Your task to perform on an android device: Show me productivity apps on the Play Store Image 0: 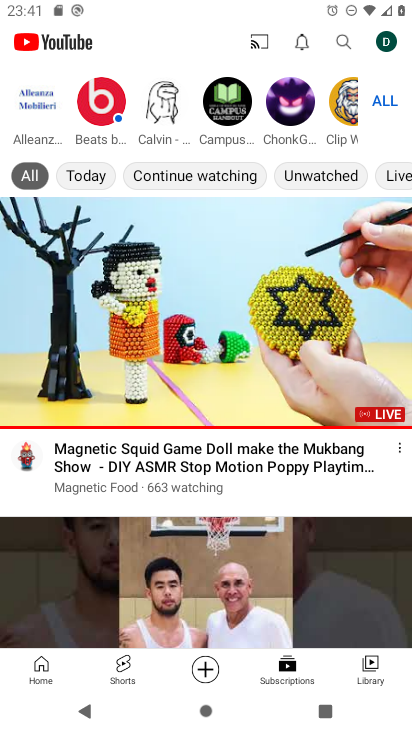
Step 0: press home button
Your task to perform on an android device: Show me productivity apps on the Play Store Image 1: 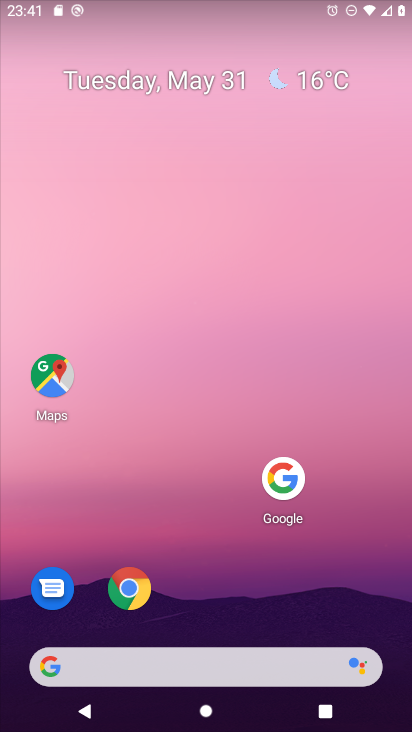
Step 1: drag from (172, 638) to (297, 93)
Your task to perform on an android device: Show me productivity apps on the Play Store Image 2: 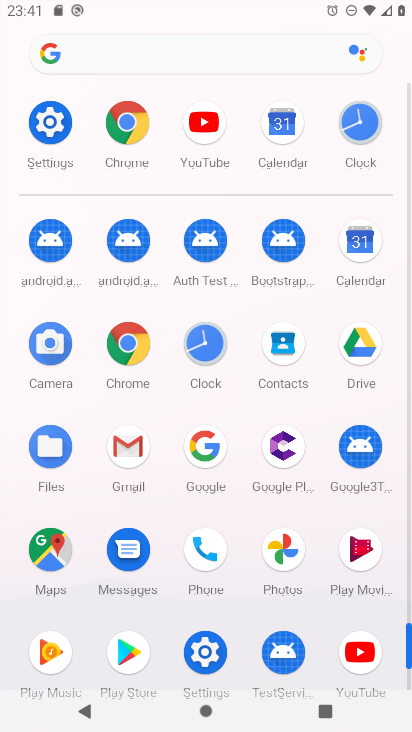
Step 2: click (133, 652)
Your task to perform on an android device: Show me productivity apps on the Play Store Image 3: 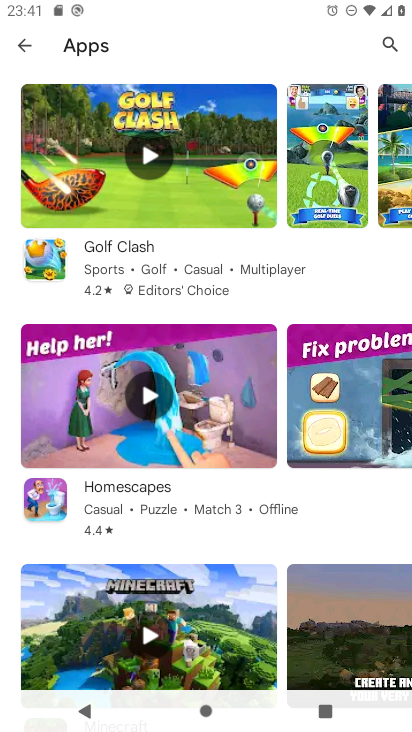
Step 3: click (22, 45)
Your task to perform on an android device: Show me productivity apps on the Play Store Image 4: 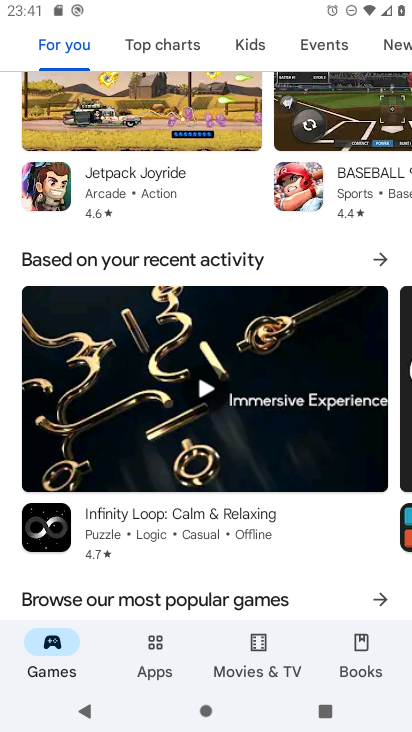
Step 4: click (149, 652)
Your task to perform on an android device: Show me productivity apps on the Play Store Image 5: 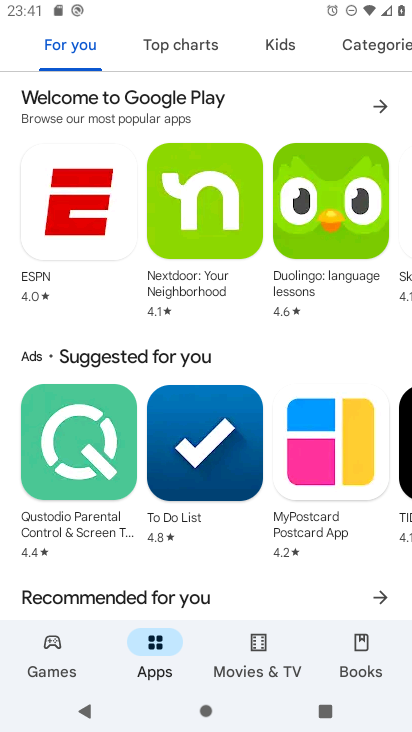
Step 5: click (378, 45)
Your task to perform on an android device: Show me productivity apps on the Play Store Image 6: 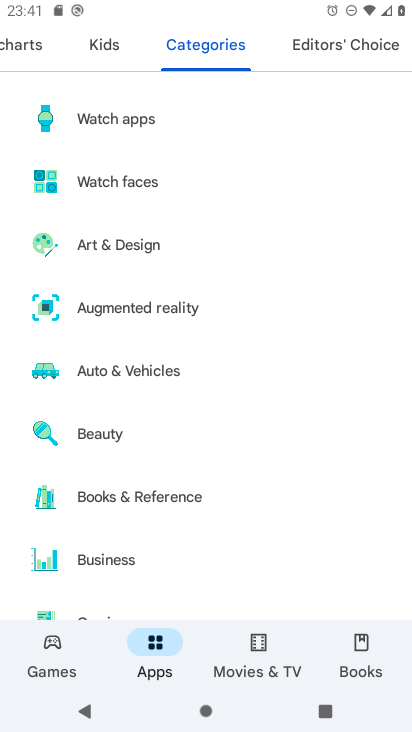
Step 6: drag from (242, 344) to (300, 69)
Your task to perform on an android device: Show me productivity apps on the Play Store Image 7: 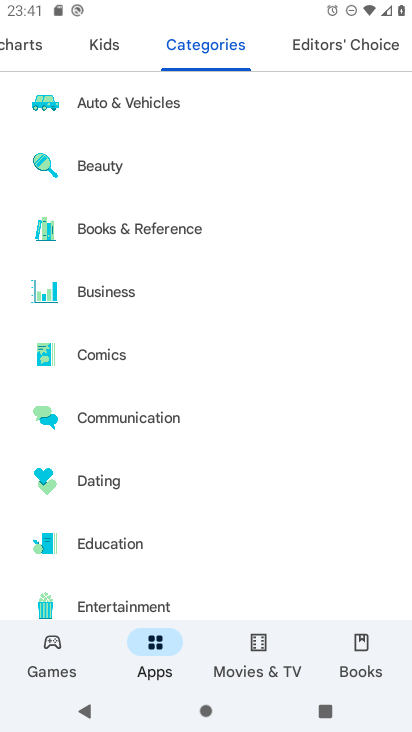
Step 7: drag from (201, 592) to (280, 118)
Your task to perform on an android device: Show me productivity apps on the Play Store Image 8: 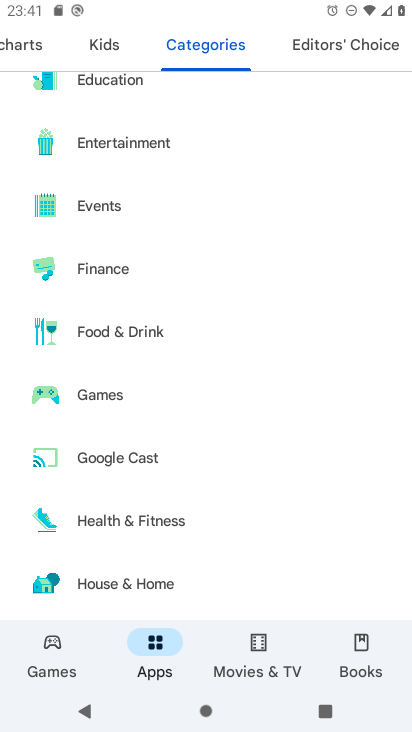
Step 8: drag from (214, 579) to (286, 46)
Your task to perform on an android device: Show me productivity apps on the Play Store Image 9: 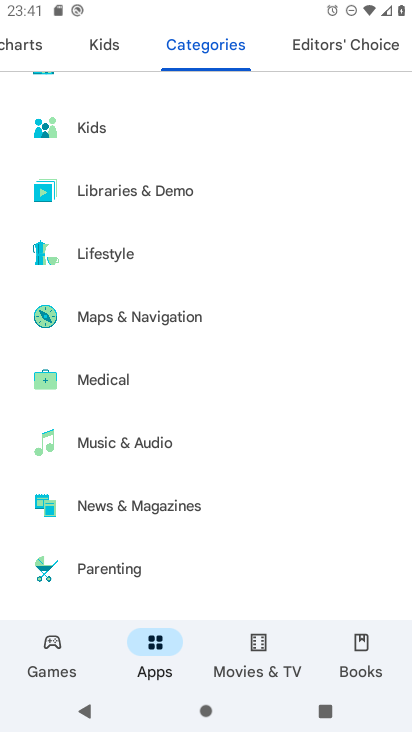
Step 9: drag from (251, 568) to (295, 161)
Your task to perform on an android device: Show me productivity apps on the Play Store Image 10: 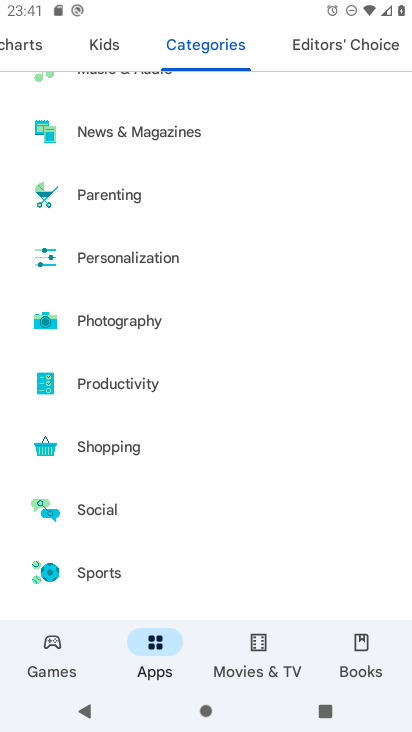
Step 10: click (146, 377)
Your task to perform on an android device: Show me productivity apps on the Play Store Image 11: 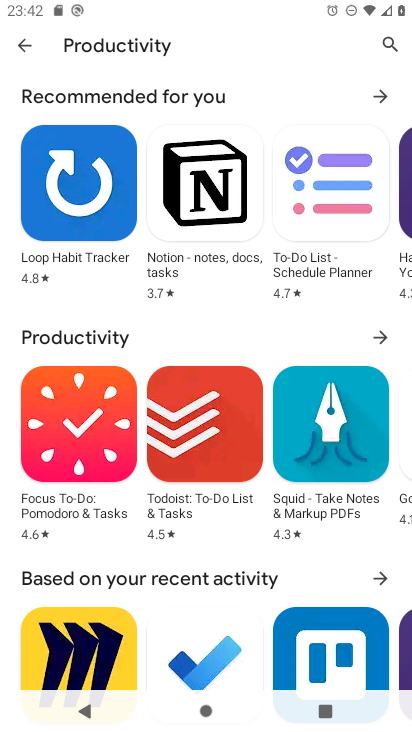
Step 11: task complete